Your task to perform on an android device: Is it going to rain this weekend? Image 0: 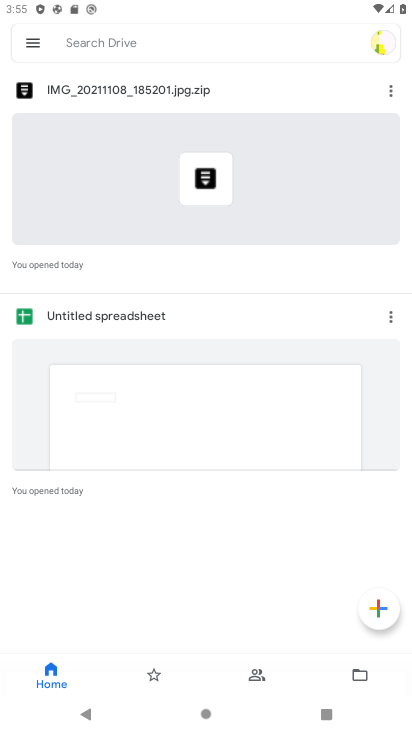
Step 0: press home button
Your task to perform on an android device: Is it going to rain this weekend? Image 1: 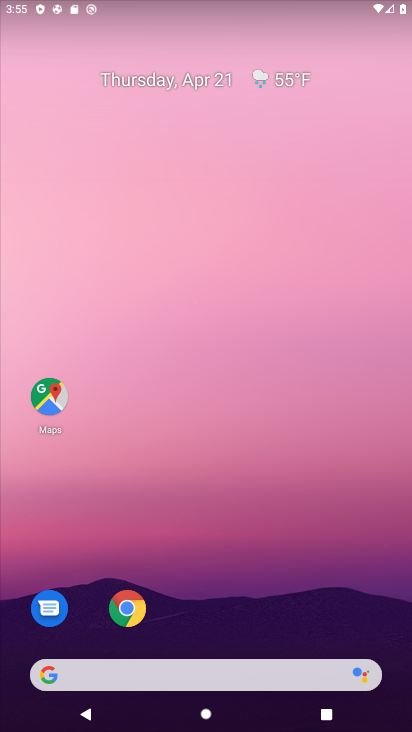
Step 1: drag from (358, 583) to (342, 424)
Your task to perform on an android device: Is it going to rain this weekend? Image 2: 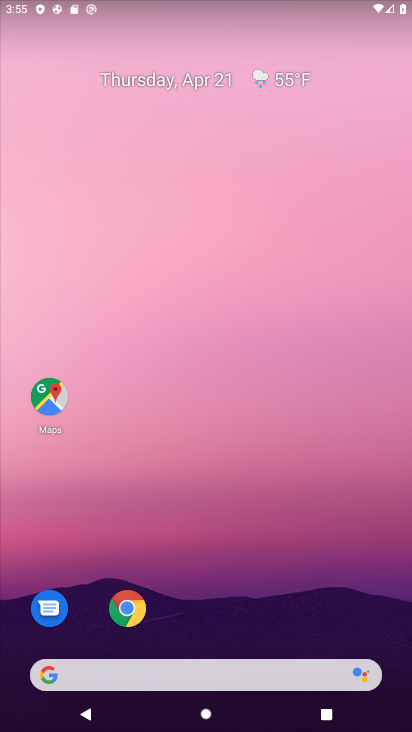
Step 2: drag from (182, 669) to (263, 287)
Your task to perform on an android device: Is it going to rain this weekend? Image 3: 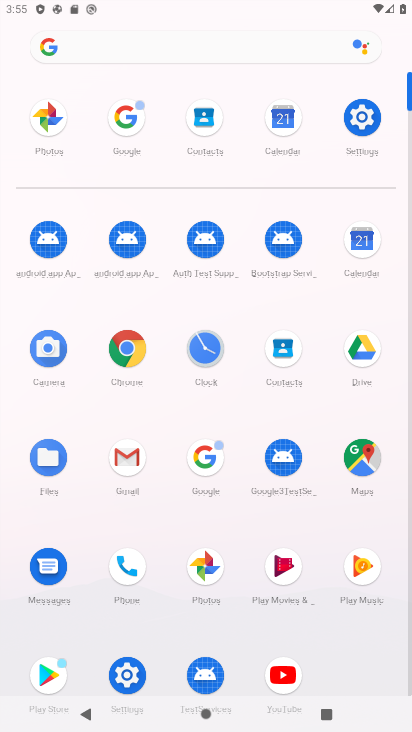
Step 3: click (206, 465)
Your task to perform on an android device: Is it going to rain this weekend? Image 4: 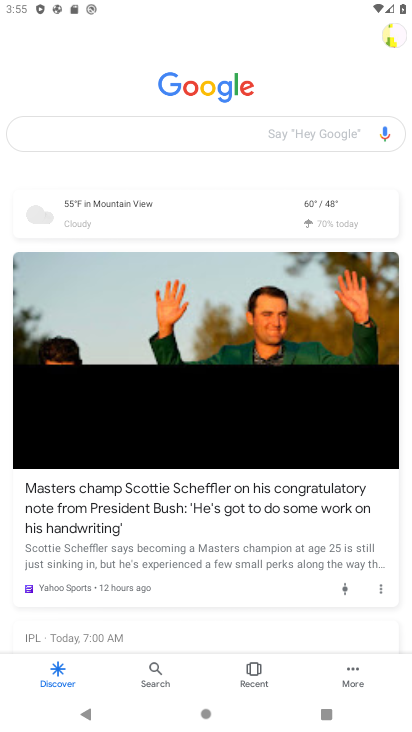
Step 4: click (215, 118)
Your task to perform on an android device: Is it going to rain this weekend? Image 5: 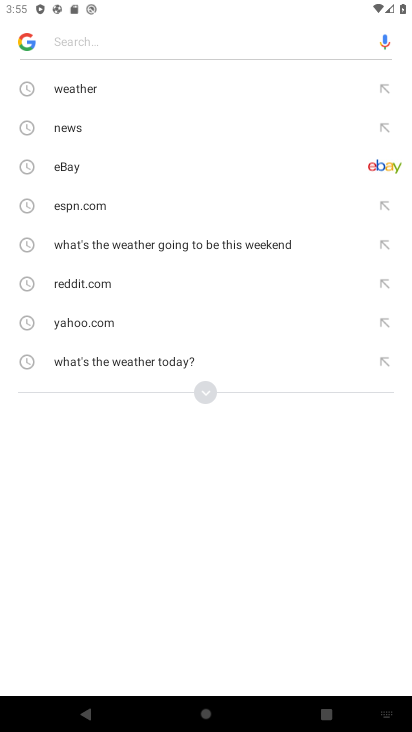
Step 5: type "saturady weather"
Your task to perform on an android device: Is it going to rain this weekend? Image 6: 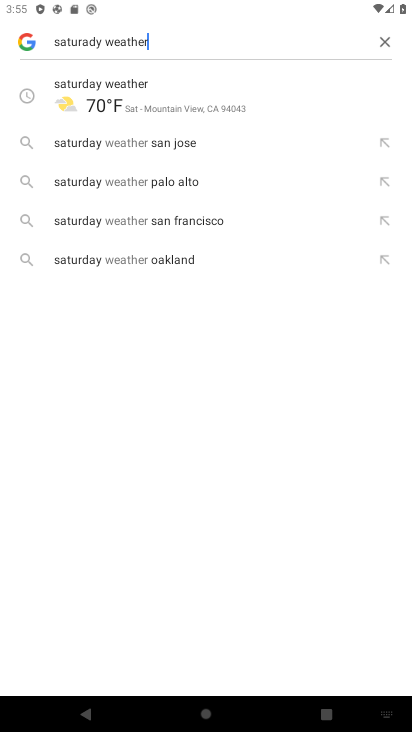
Step 6: click (313, 78)
Your task to perform on an android device: Is it going to rain this weekend? Image 7: 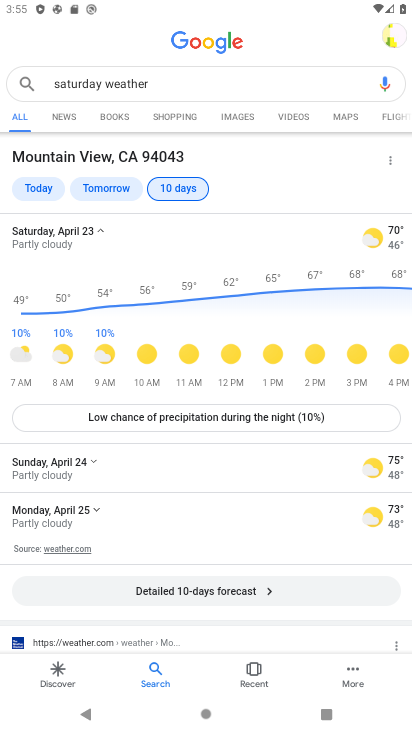
Step 7: task complete